Your task to perform on an android device: read, delete, or share a saved page in the chrome app Image 0: 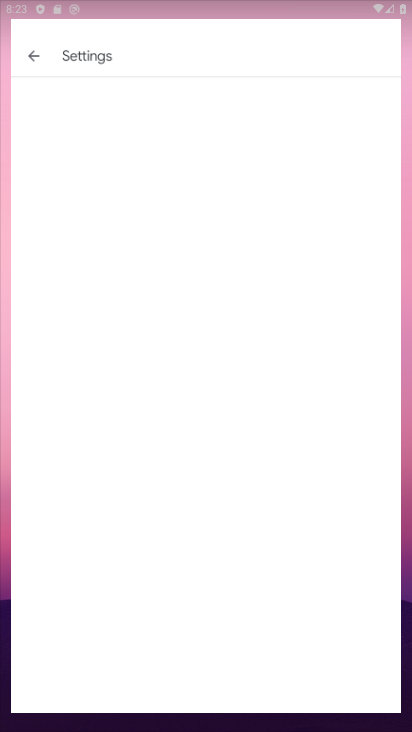
Step 0: drag from (250, 611) to (180, 91)
Your task to perform on an android device: read, delete, or share a saved page in the chrome app Image 1: 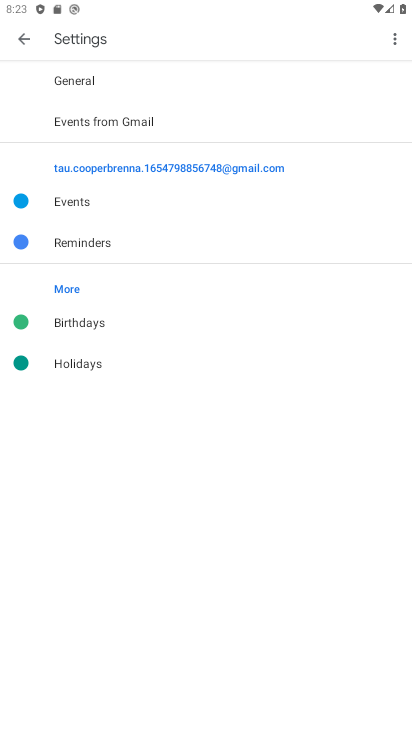
Step 1: press home button
Your task to perform on an android device: read, delete, or share a saved page in the chrome app Image 2: 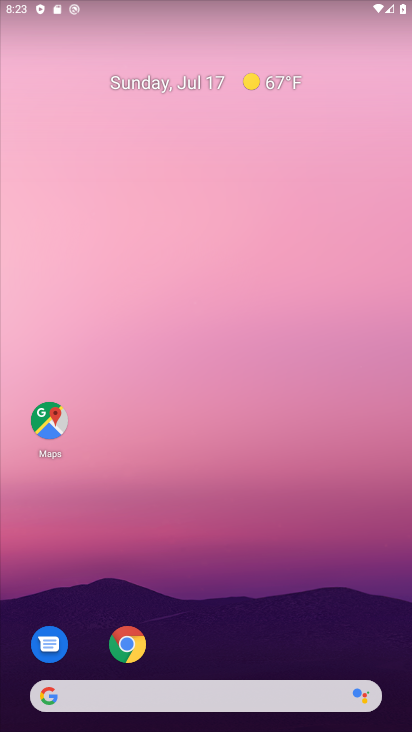
Step 2: click (131, 644)
Your task to perform on an android device: read, delete, or share a saved page in the chrome app Image 3: 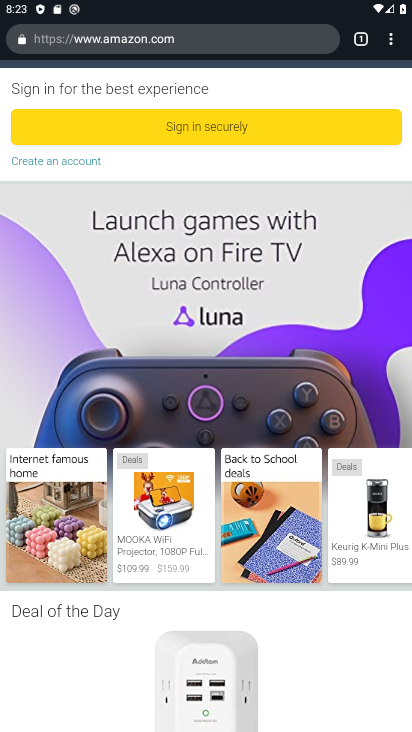
Step 3: click (389, 46)
Your task to perform on an android device: read, delete, or share a saved page in the chrome app Image 4: 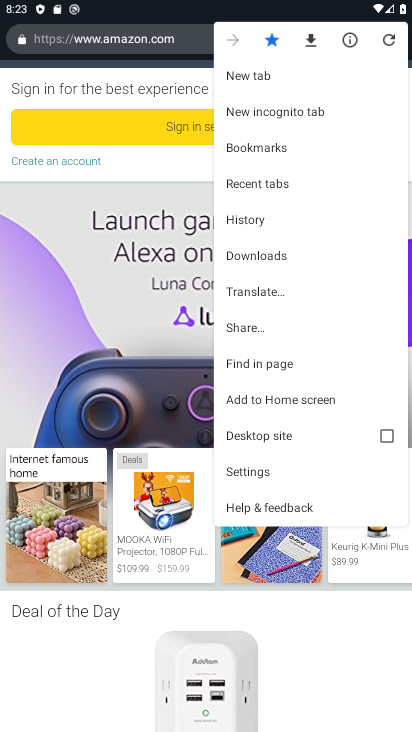
Step 4: click (262, 467)
Your task to perform on an android device: read, delete, or share a saved page in the chrome app Image 5: 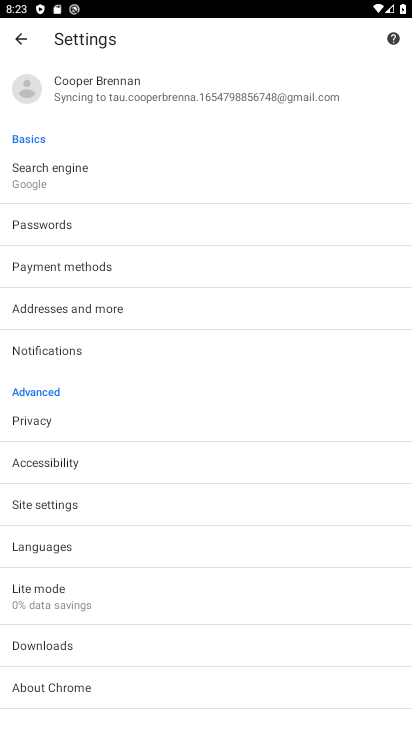
Step 5: task complete